Your task to perform on an android device: Go to Maps Image 0: 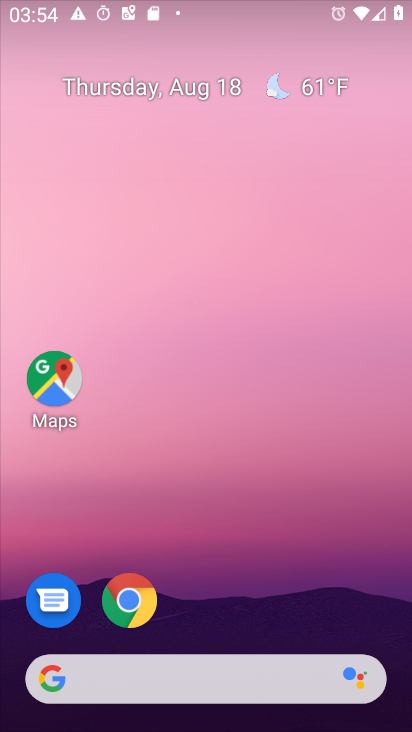
Step 0: press home button
Your task to perform on an android device: Go to Maps Image 1: 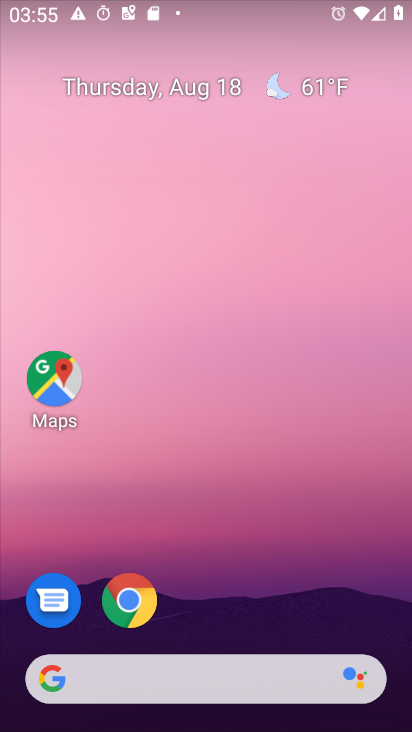
Step 1: click (50, 367)
Your task to perform on an android device: Go to Maps Image 2: 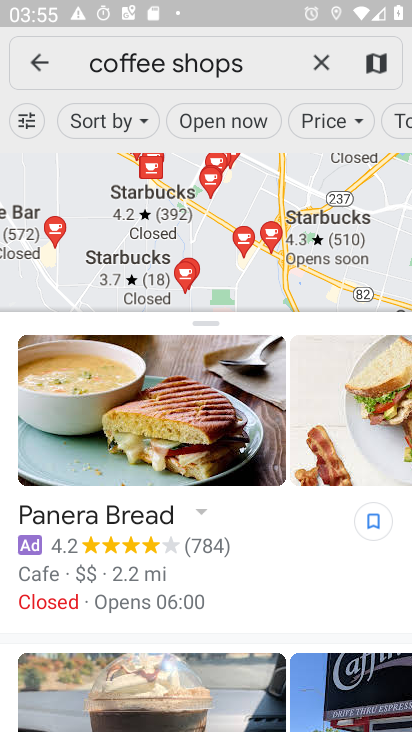
Step 2: task complete